Your task to perform on an android device: toggle airplane mode Image 0: 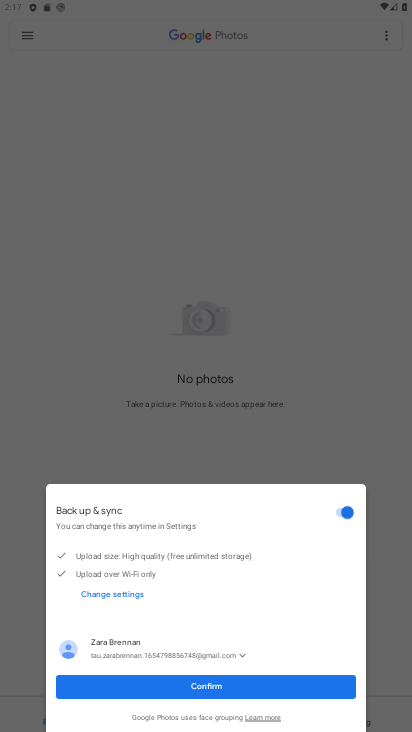
Step 0: press home button
Your task to perform on an android device: toggle airplane mode Image 1: 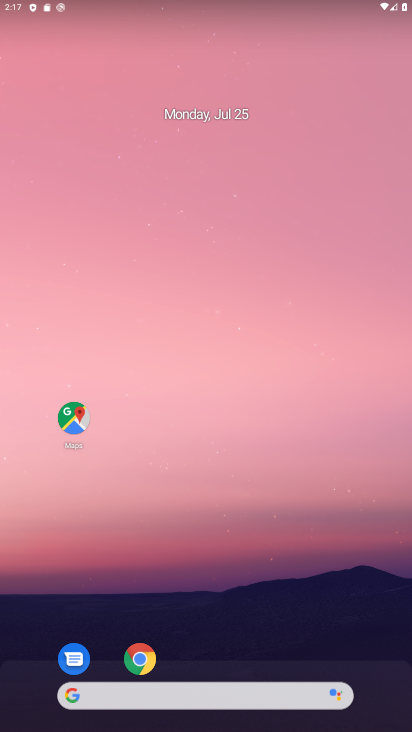
Step 1: drag from (238, 655) to (152, 175)
Your task to perform on an android device: toggle airplane mode Image 2: 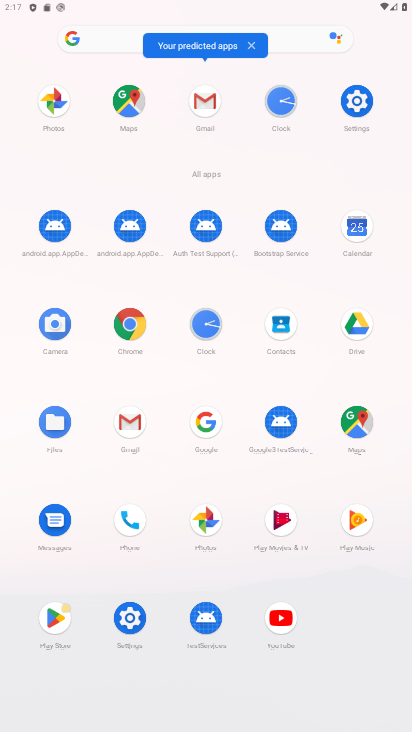
Step 2: click (357, 111)
Your task to perform on an android device: toggle airplane mode Image 3: 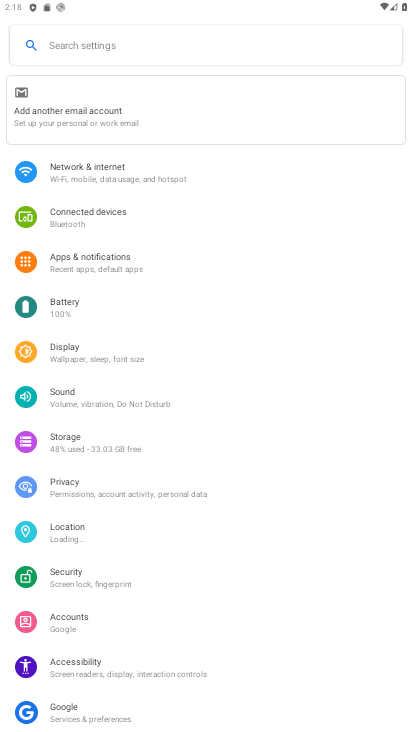
Step 3: click (78, 180)
Your task to perform on an android device: toggle airplane mode Image 4: 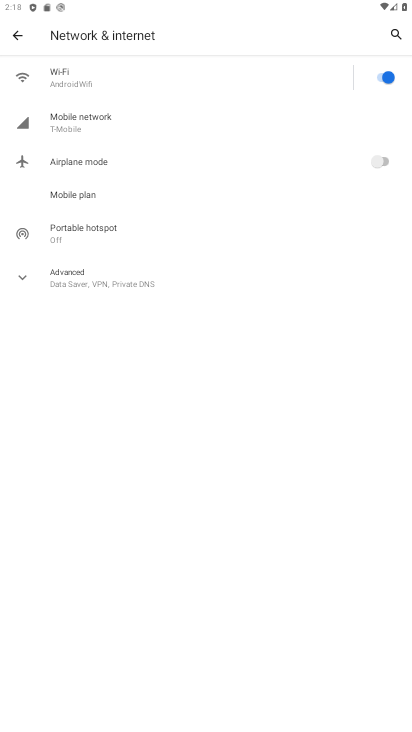
Step 4: click (391, 159)
Your task to perform on an android device: toggle airplane mode Image 5: 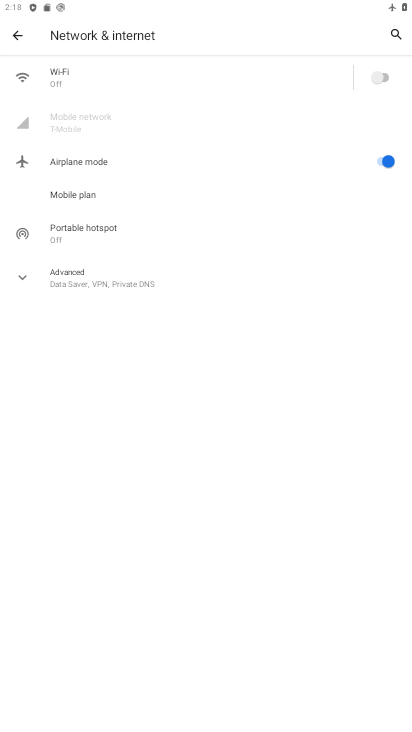
Step 5: task complete